Your task to perform on an android device: Go to Android settings Image 0: 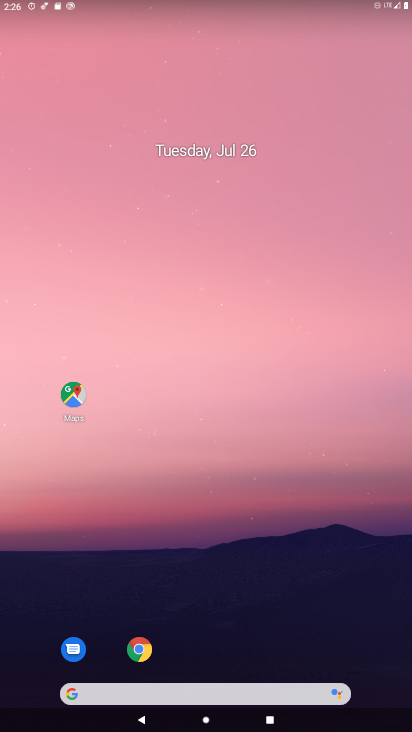
Step 0: drag from (350, 611) to (187, 39)
Your task to perform on an android device: Go to Android settings Image 1: 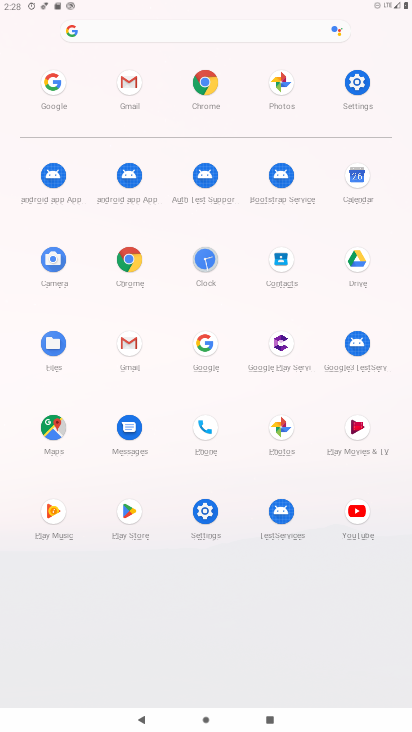
Step 1: click (193, 513)
Your task to perform on an android device: Go to Android settings Image 2: 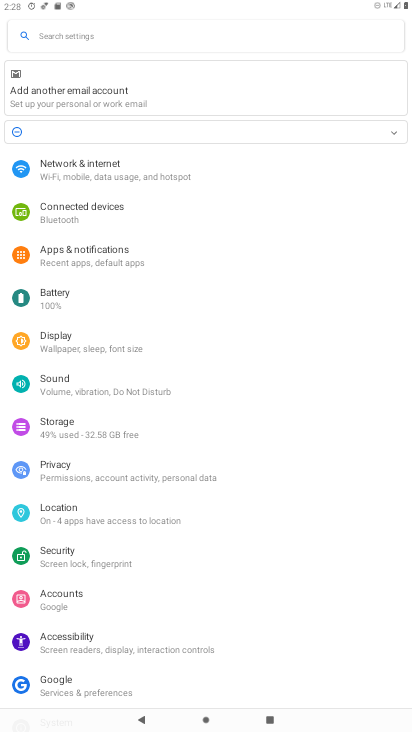
Step 2: task complete